Your task to perform on an android device: Open calendar and show me the fourth week of next month Image 0: 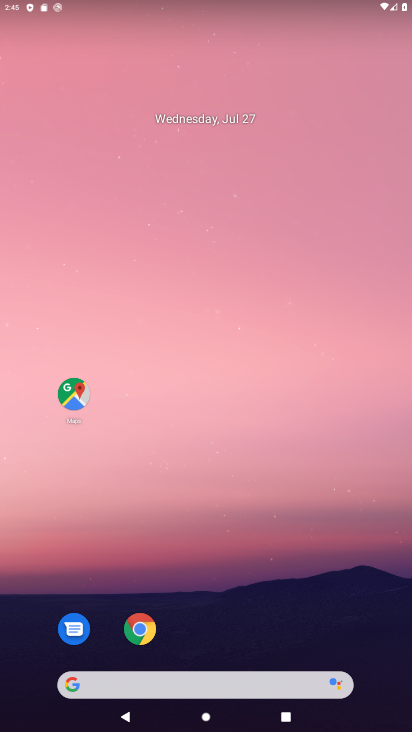
Step 0: click (218, 135)
Your task to perform on an android device: Open calendar and show me the fourth week of next month Image 1: 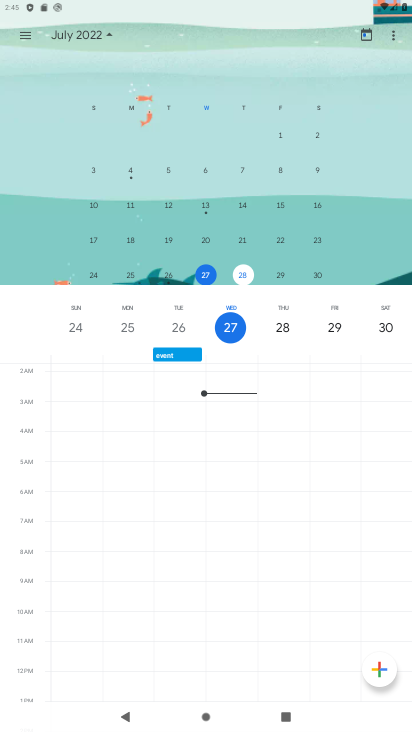
Step 1: drag from (358, 148) to (77, 140)
Your task to perform on an android device: Open calendar and show me the fourth week of next month Image 2: 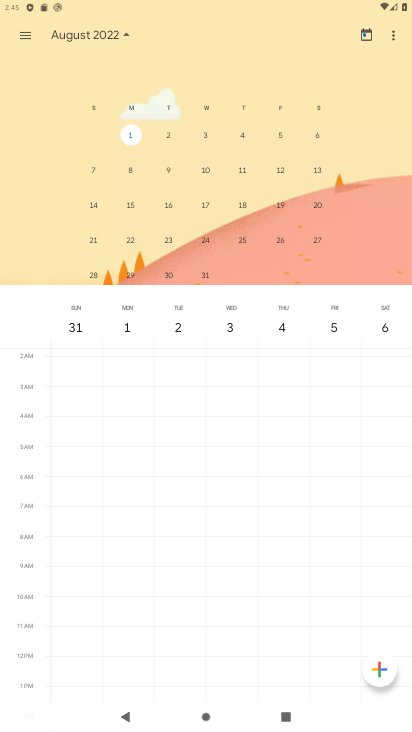
Step 2: click (133, 240)
Your task to perform on an android device: Open calendar and show me the fourth week of next month Image 3: 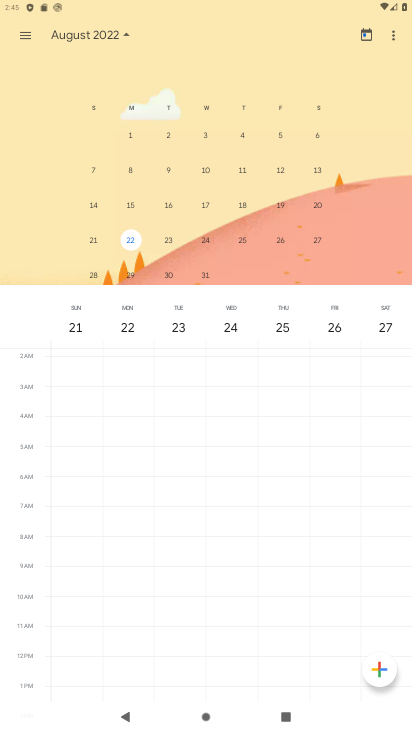
Step 3: task complete